Your task to perform on an android device: Do I have any events tomorrow? Image 0: 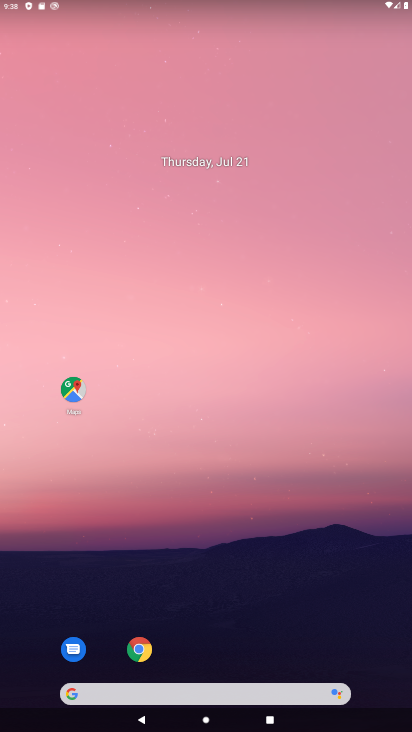
Step 0: drag from (307, 591) to (334, 253)
Your task to perform on an android device: Do I have any events tomorrow? Image 1: 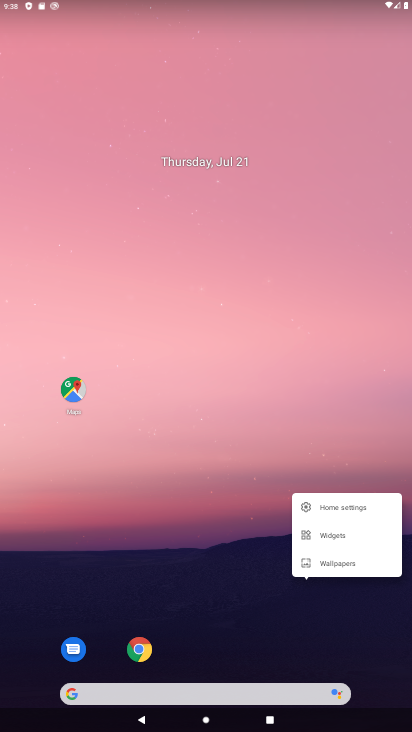
Step 1: click (237, 616)
Your task to perform on an android device: Do I have any events tomorrow? Image 2: 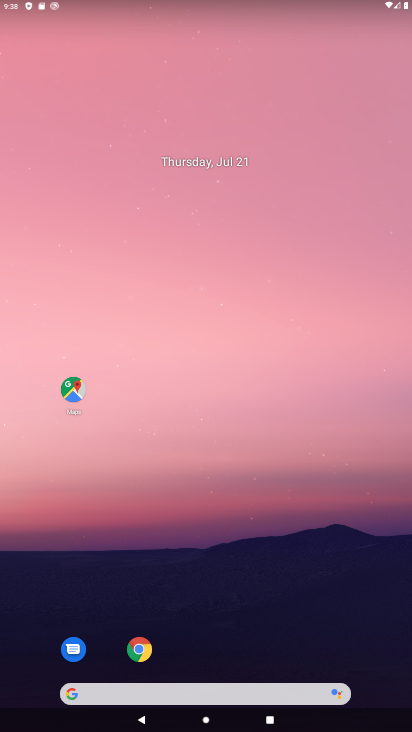
Step 2: drag from (237, 616) to (334, 96)
Your task to perform on an android device: Do I have any events tomorrow? Image 3: 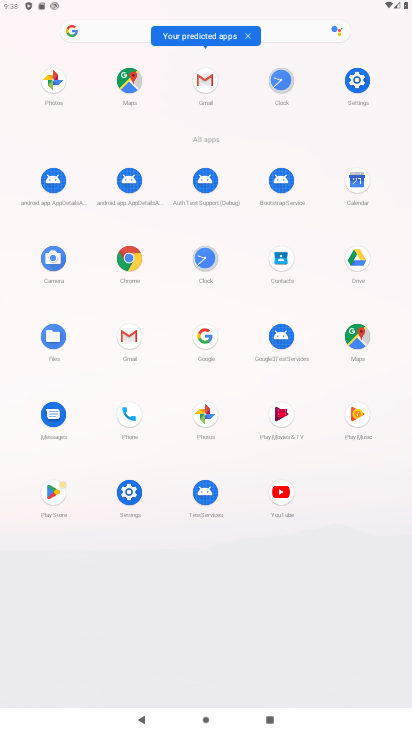
Step 3: click (355, 173)
Your task to perform on an android device: Do I have any events tomorrow? Image 4: 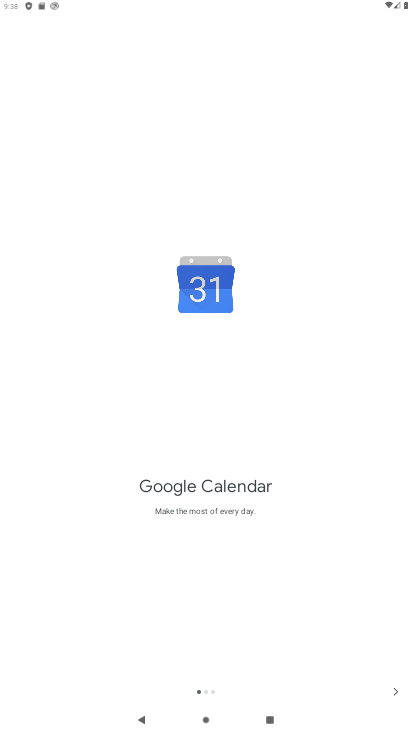
Step 4: click (398, 693)
Your task to perform on an android device: Do I have any events tomorrow? Image 5: 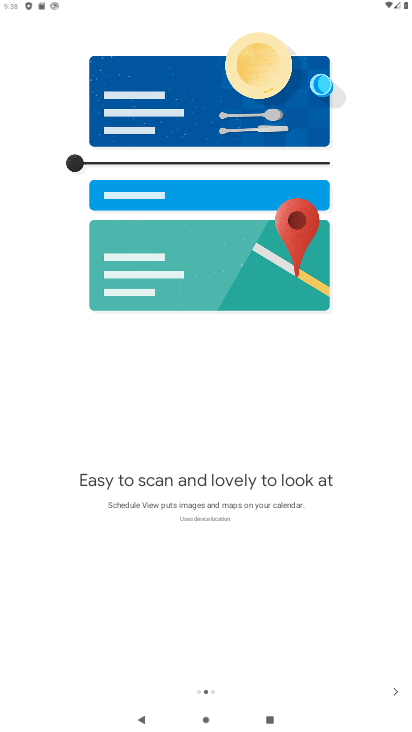
Step 5: click (398, 693)
Your task to perform on an android device: Do I have any events tomorrow? Image 6: 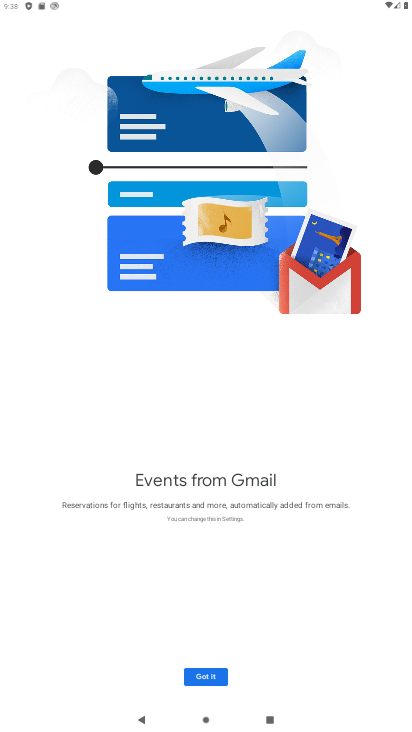
Step 6: click (205, 674)
Your task to perform on an android device: Do I have any events tomorrow? Image 7: 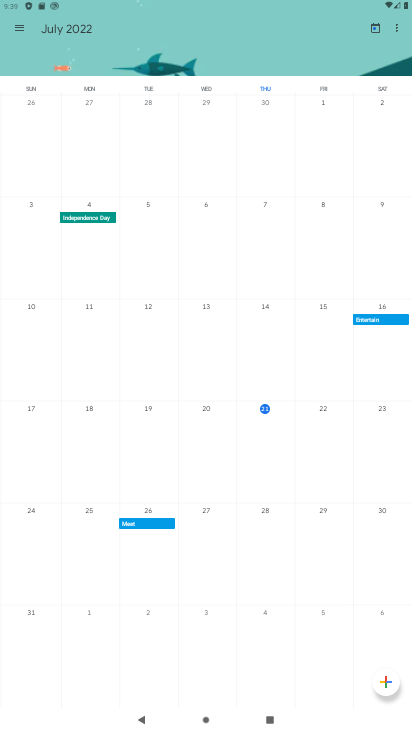
Step 7: click (27, 30)
Your task to perform on an android device: Do I have any events tomorrow? Image 8: 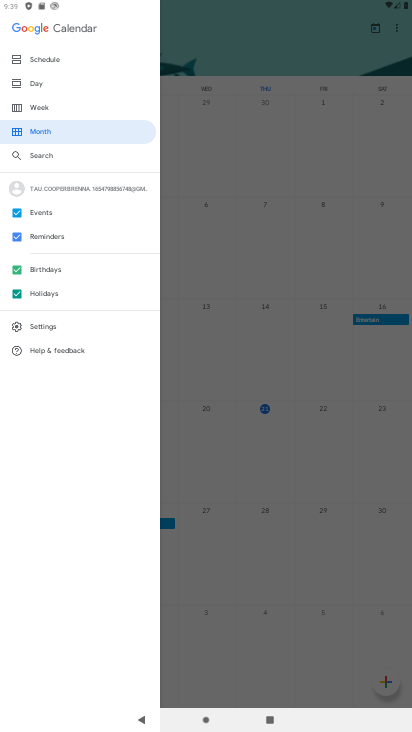
Step 8: click (45, 80)
Your task to perform on an android device: Do I have any events tomorrow? Image 9: 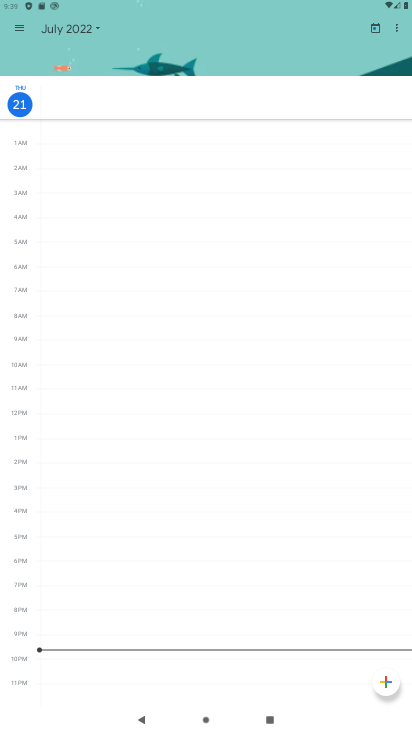
Step 9: click (87, 28)
Your task to perform on an android device: Do I have any events tomorrow? Image 10: 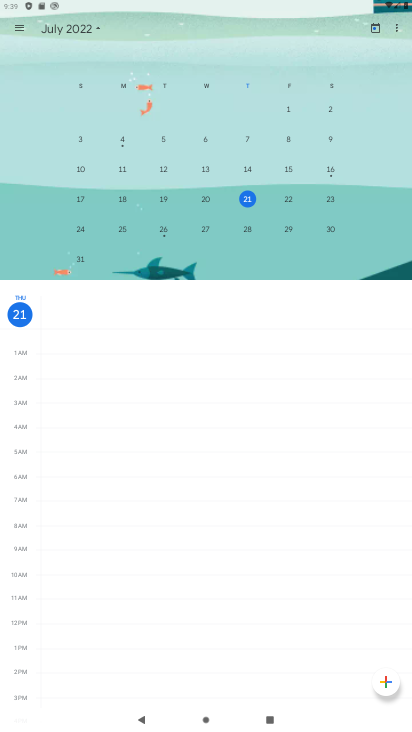
Step 10: click (285, 199)
Your task to perform on an android device: Do I have any events tomorrow? Image 11: 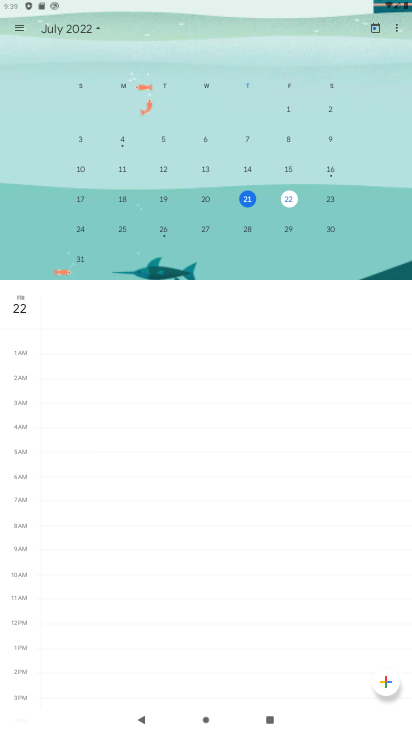
Step 11: task complete